Your task to perform on an android device: turn on priority inbox in the gmail app Image 0: 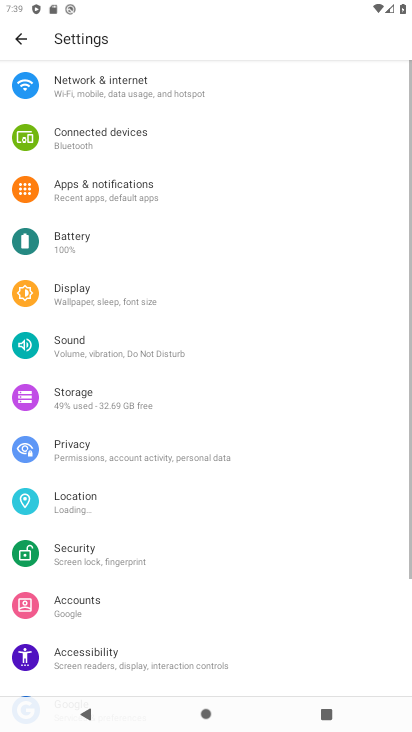
Step 0: press home button
Your task to perform on an android device: turn on priority inbox in the gmail app Image 1: 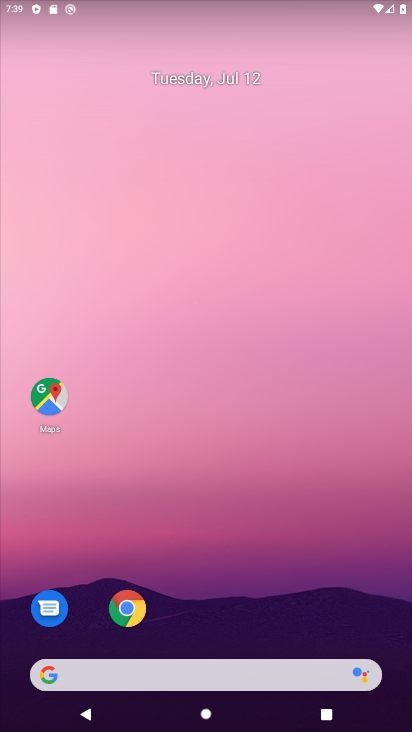
Step 1: drag from (224, 658) to (219, 89)
Your task to perform on an android device: turn on priority inbox in the gmail app Image 2: 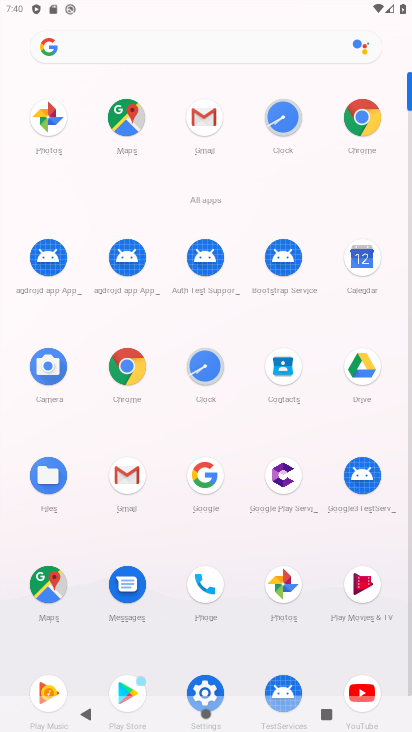
Step 2: click (117, 489)
Your task to perform on an android device: turn on priority inbox in the gmail app Image 3: 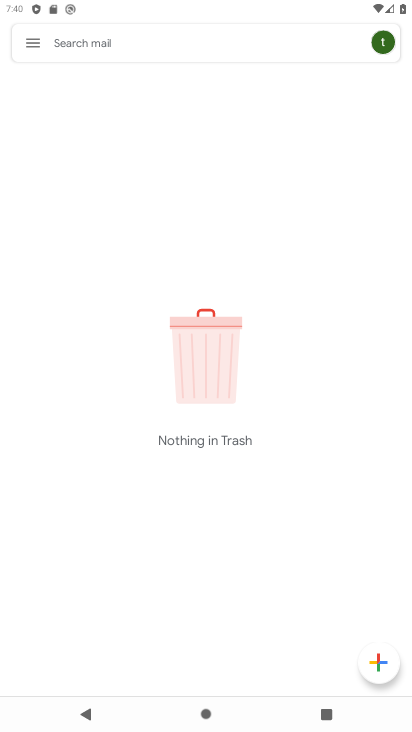
Step 3: click (26, 37)
Your task to perform on an android device: turn on priority inbox in the gmail app Image 4: 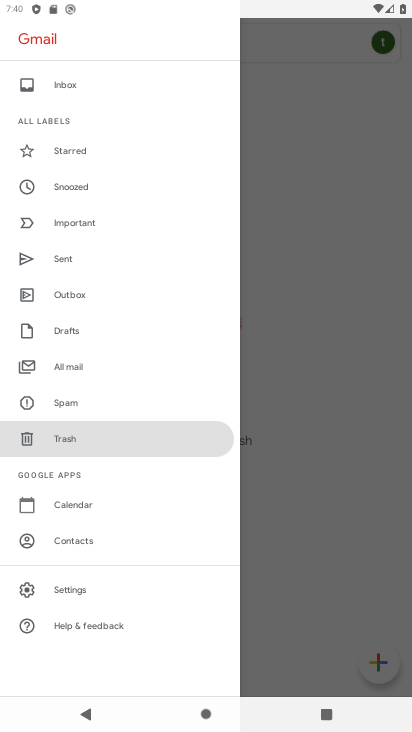
Step 4: click (87, 598)
Your task to perform on an android device: turn on priority inbox in the gmail app Image 5: 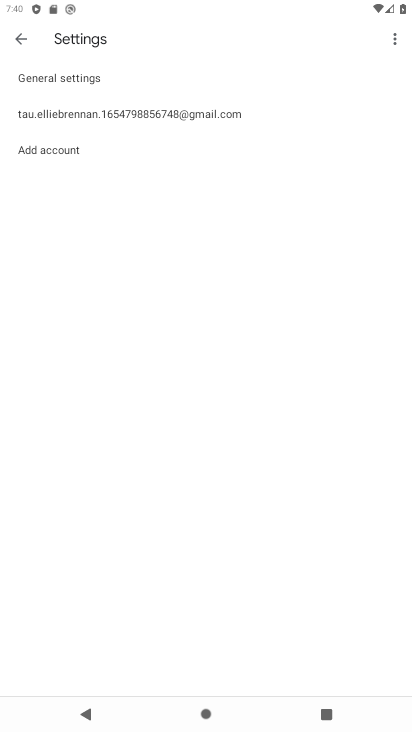
Step 5: click (22, 115)
Your task to perform on an android device: turn on priority inbox in the gmail app Image 6: 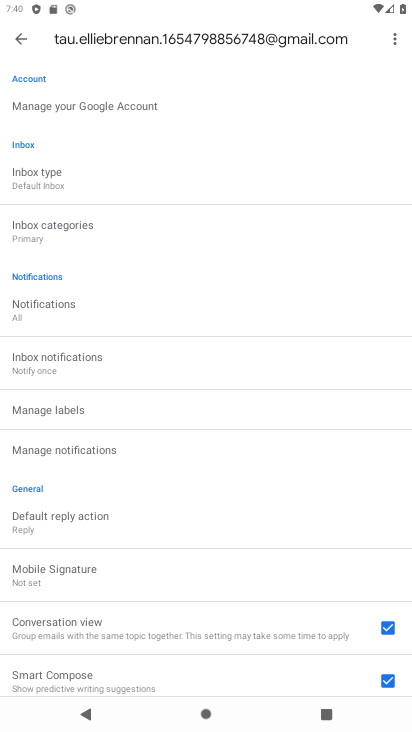
Step 6: click (33, 244)
Your task to perform on an android device: turn on priority inbox in the gmail app Image 7: 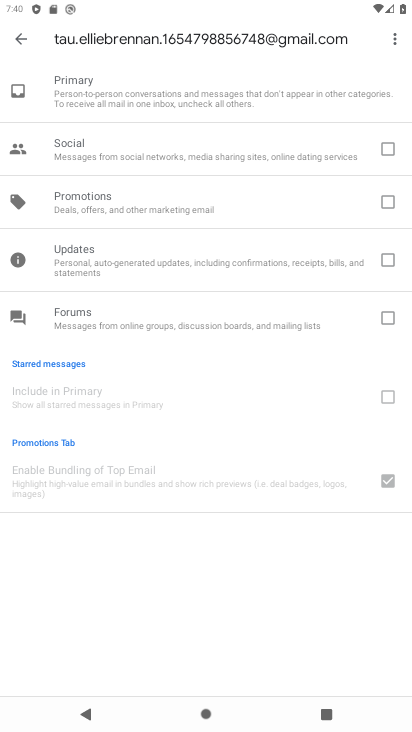
Step 7: click (18, 43)
Your task to perform on an android device: turn on priority inbox in the gmail app Image 8: 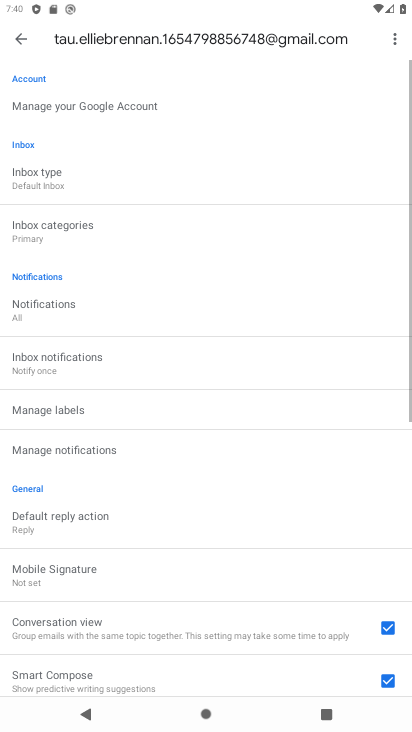
Step 8: click (41, 166)
Your task to perform on an android device: turn on priority inbox in the gmail app Image 9: 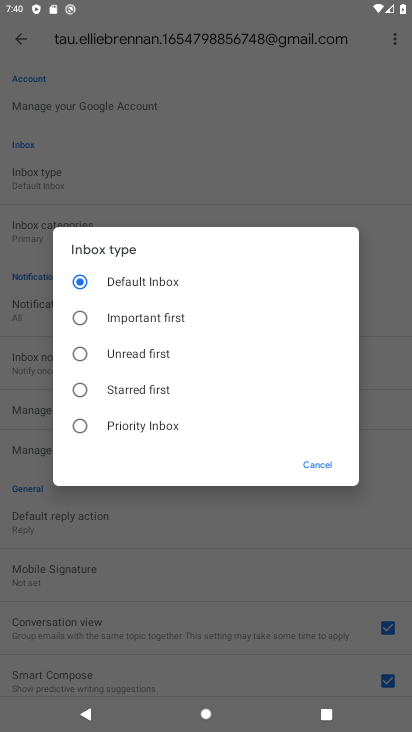
Step 9: click (121, 413)
Your task to perform on an android device: turn on priority inbox in the gmail app Image 10: 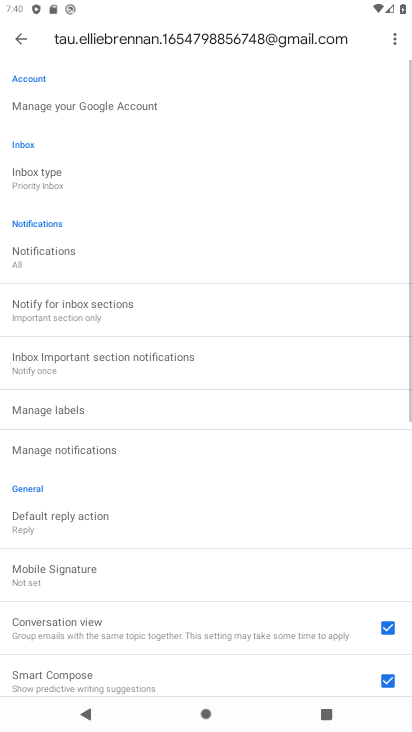
Step 10: task complete